Your task to perform on an android device: Clear the shopping cart on ebay. Add alienware aurora to the cart on ebay Image 0: 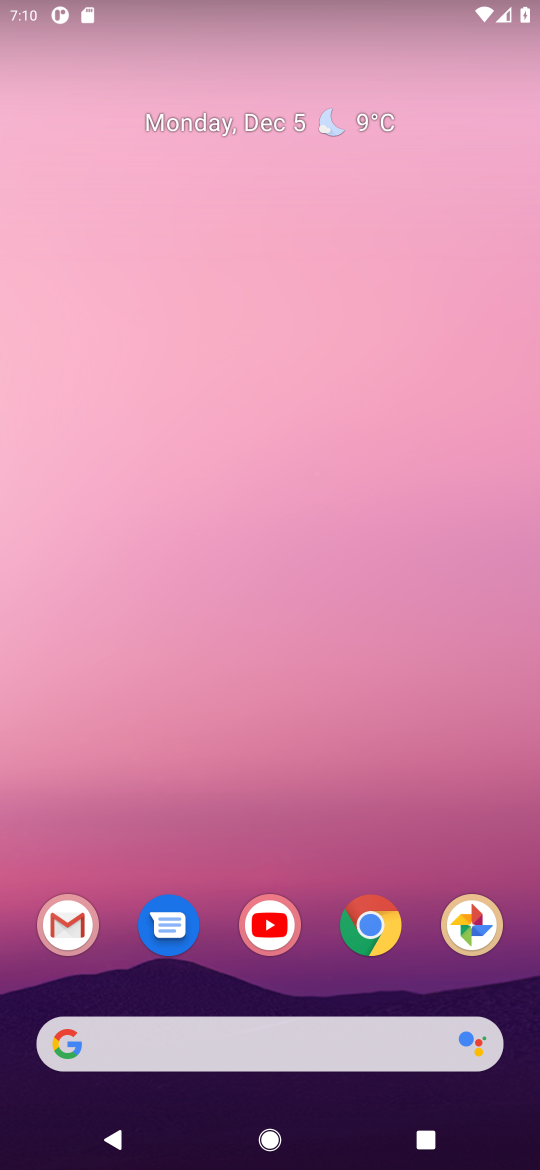
Step 0: click (375, 949)
Your task to perform on an android device: Clear the shopping cart on ebay. Add alienware aurora to the cart on ebay Image 1: 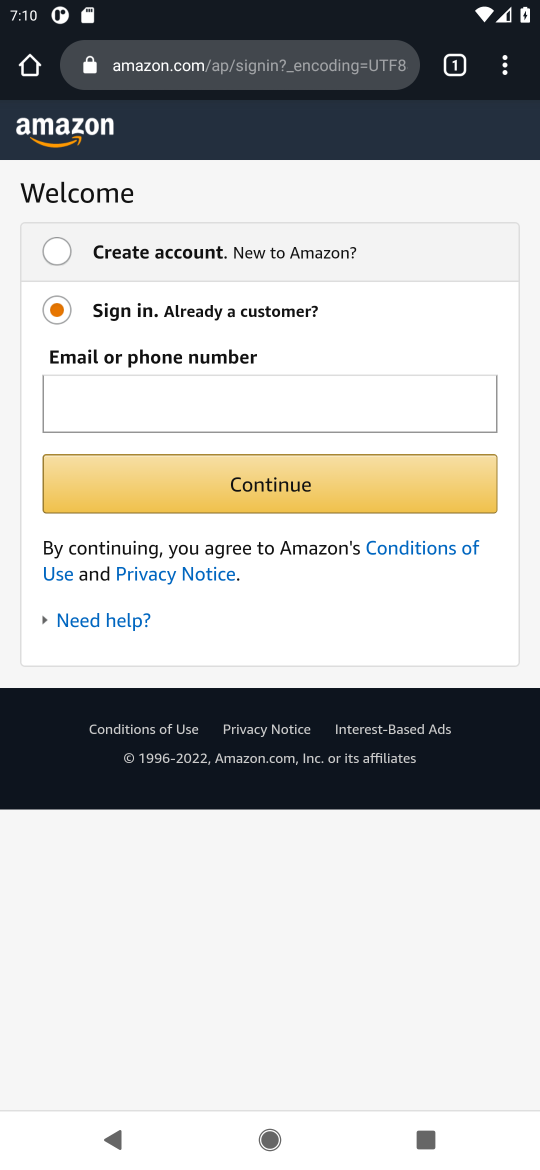
Step 1: click (204, 74)
Your task to perform on an android device: Clear the shopping cart on ebay. Add alienware aurora to the cart on ebay Image 2: 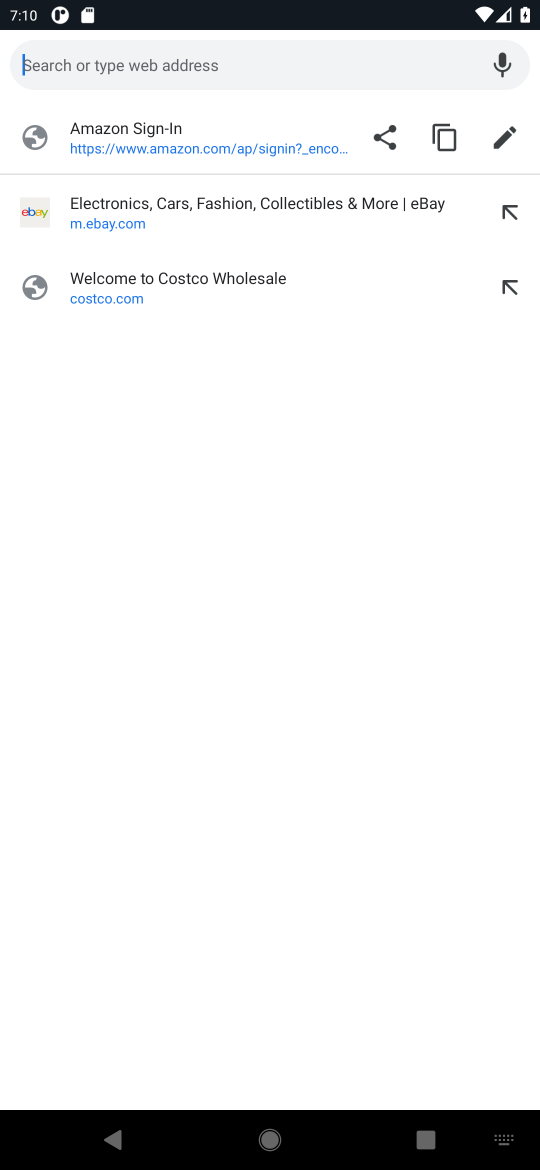
Step 2: click (99, 218)
Your task to perform on an android device: Clear the shopping cart on ebay. Add alienware aurora to the cart on ebay Image 3: 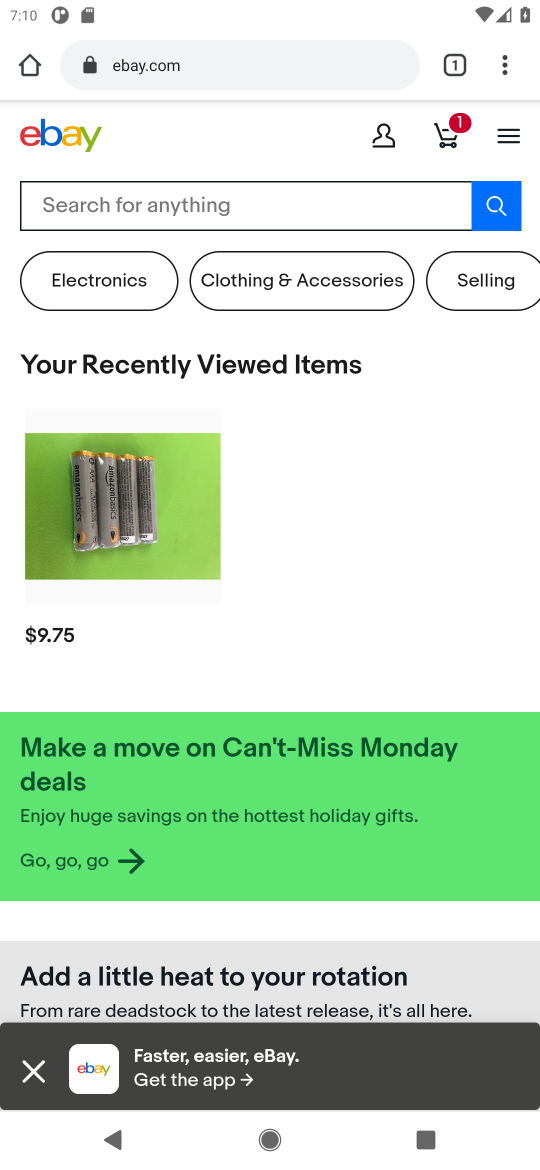
Step 3: click (447, 132)
Your task to perform on an android device: Clear the shopping cart on ebay. Add alienware aurora to the cart on ebay Image 4: 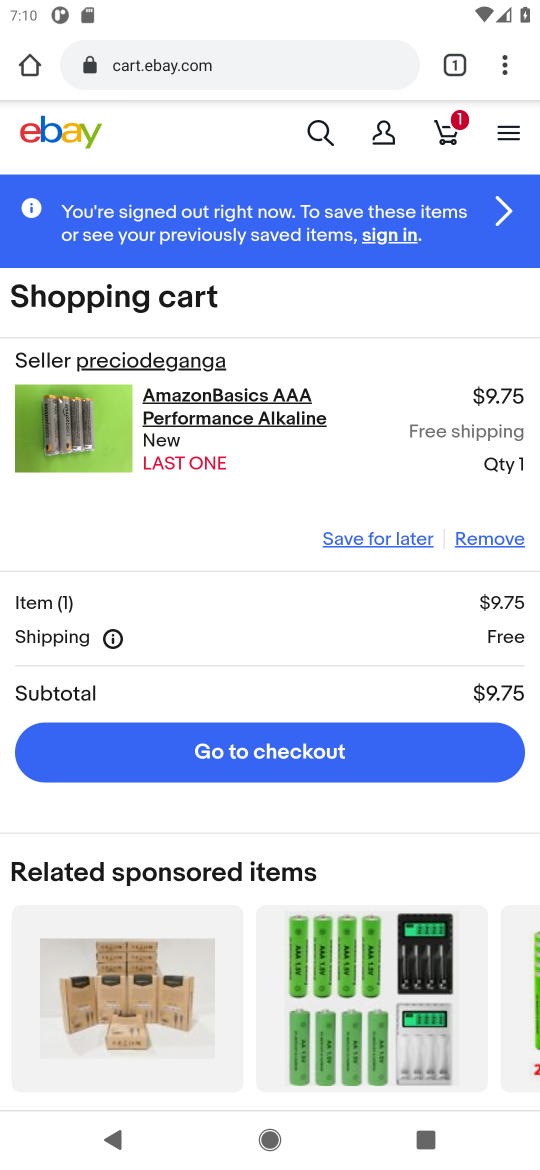
Step 4: click (478, 537)
Your task to perform on an android device: Clear the shopping cart on ebay. Add alienware aurora to the cart on ebay Image 5: 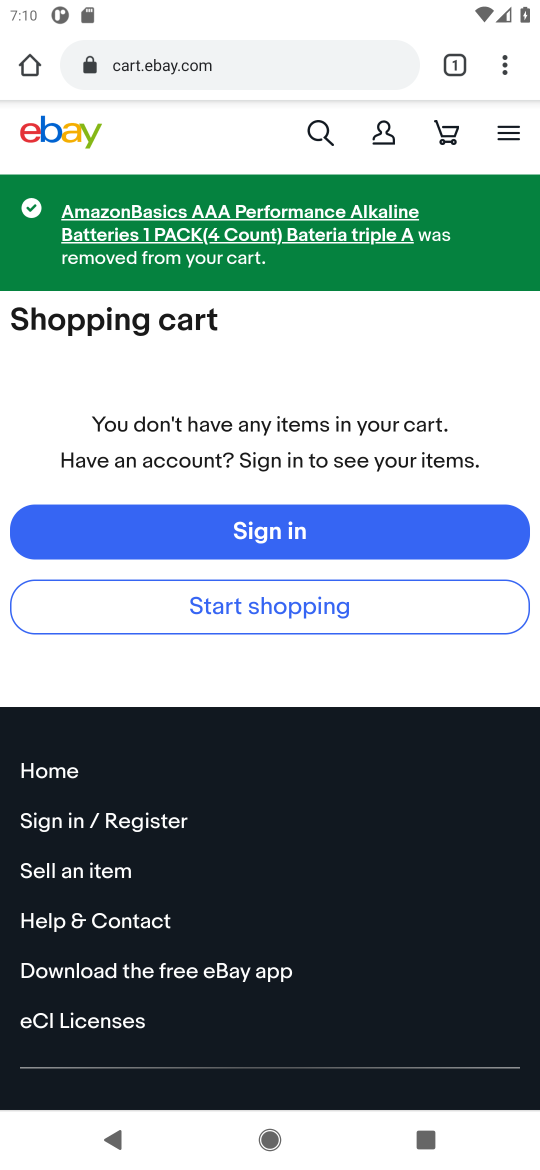
Step 5: click (317, 125)
Your task to perform on an android device: Clear the shopping cart on ebay. Add alienware aurora to the cart on ebay Image 6: 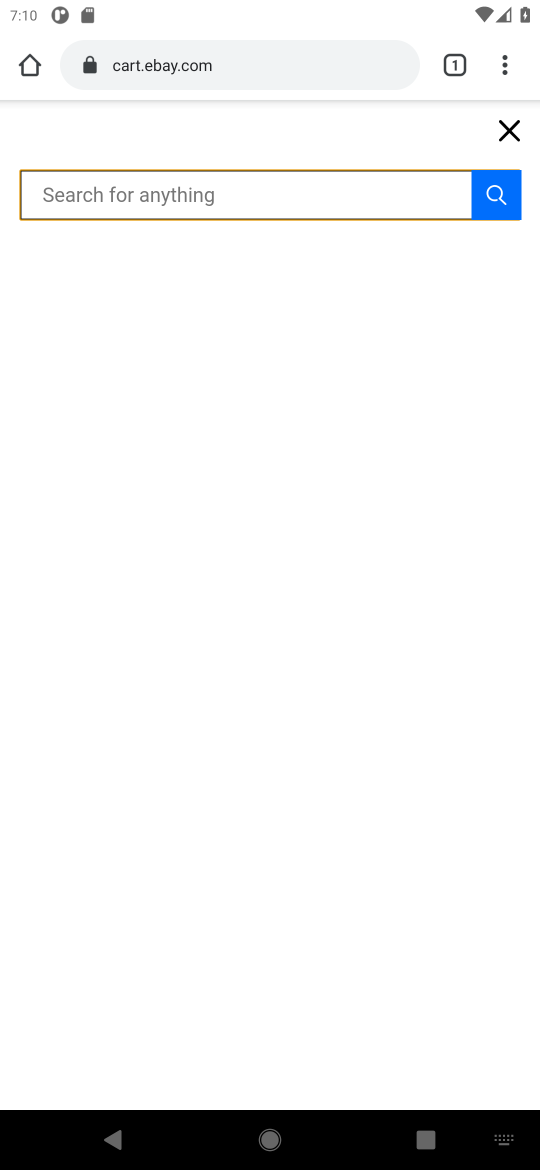
Step 6: type "alienware aurora"
Your task to perform on an android device: Clear the shopping cart on ebay. Add alienware aurora to the cart on ebay Image 7: 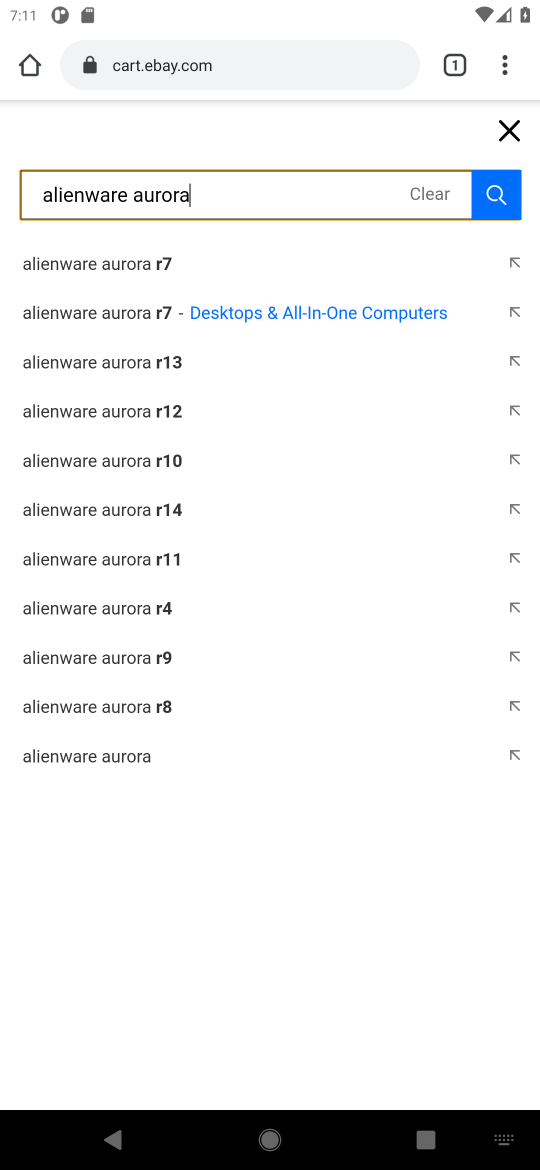
Step 7: click (88, 756)
Your task to perform on an android device: Clear the shopping cart on ebay. Add alienware aurora to the cart on ebay Image 8: 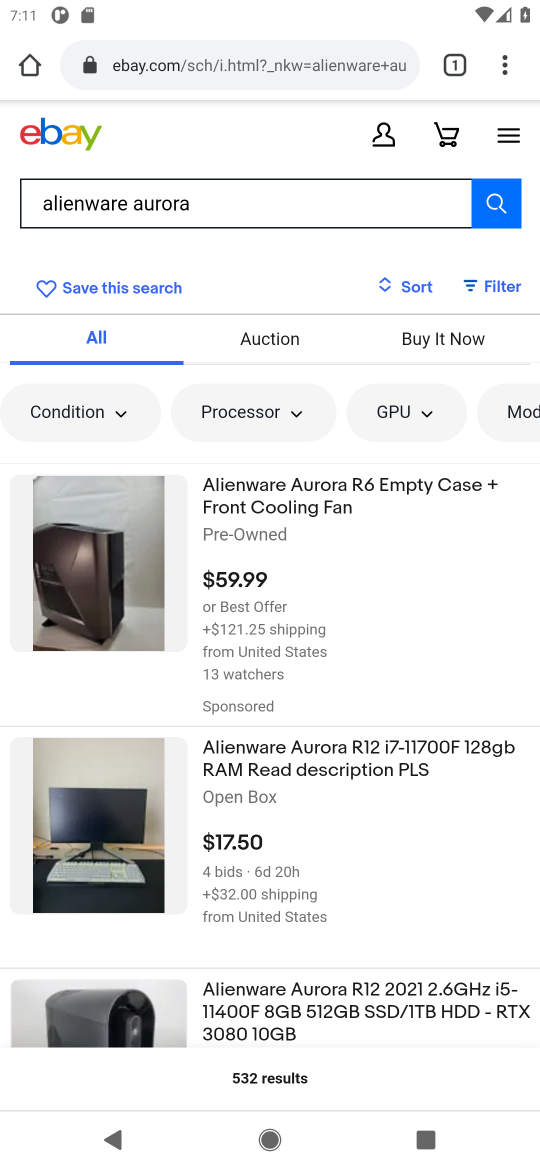
Step 8: click (225, 522)
Your task to perform on an android device: Clear the shopping cart on ebay. Add alienware aurora to the cart on ebay Image 9: 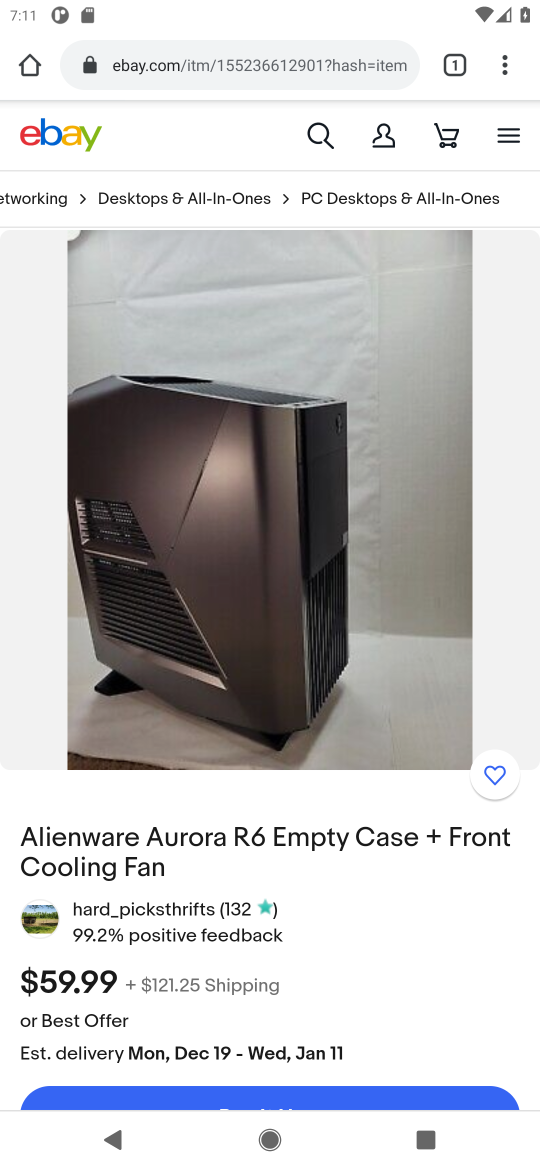
Step 9: drag from (238, 819) to (261, 367)
Your task to perform on an android device: Clear the shopping cart on ebay. Add alienware aurora to the cart on ebay Image 10: 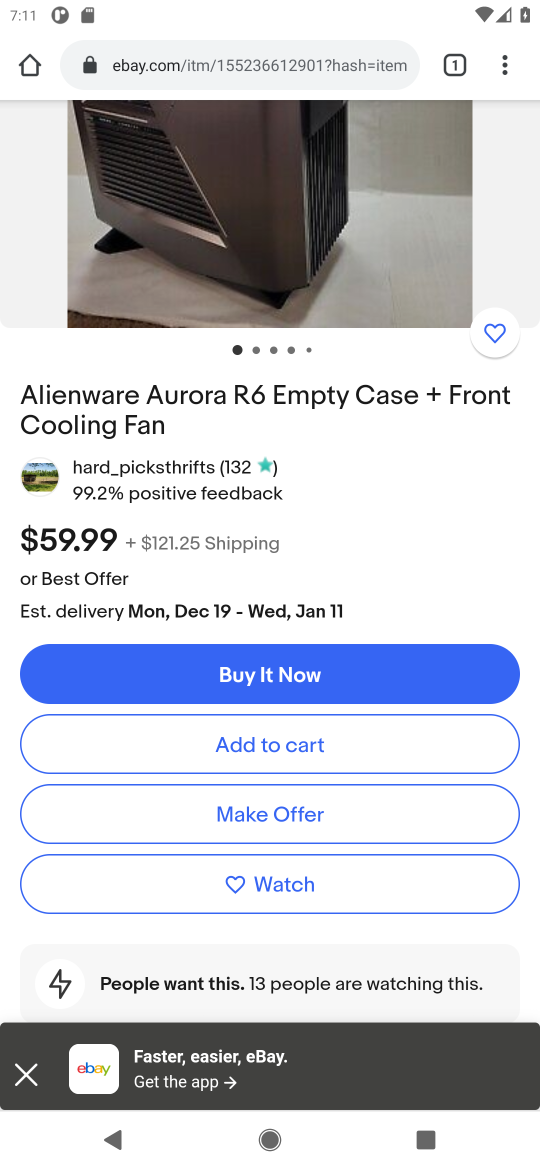
Step 10: click (245, 749)
Your task to perform on an android device: Clear the shopping cart on ebay. Add alienware aurora to the cart on ebay Image 11: 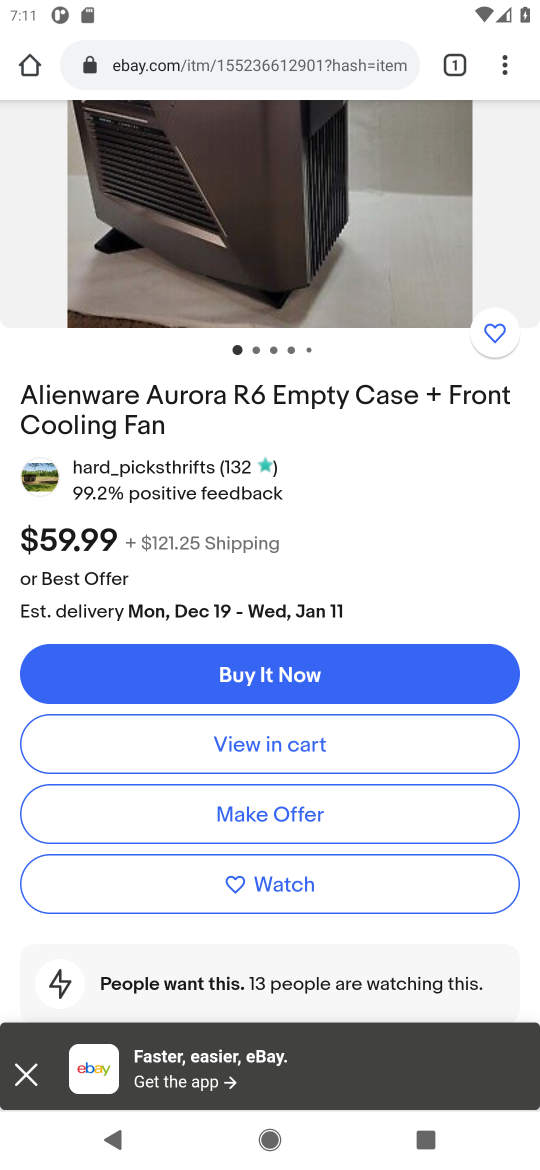
Step 11: task complete